Your task to perform on an android device: turn off location history Image 0: 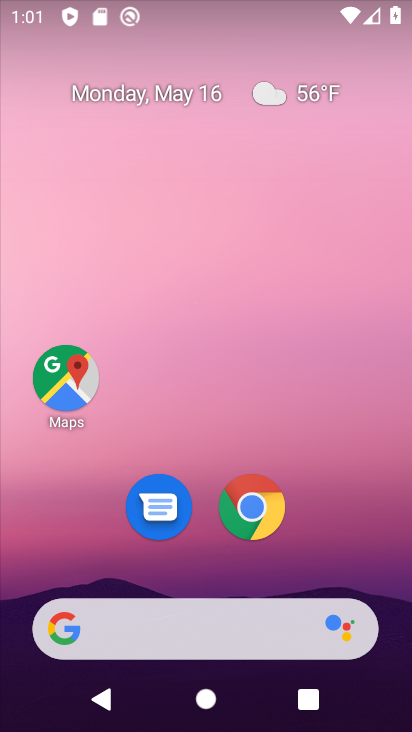
Step 0: drag from (205, 481) to (205, 184)
Your task to perform on an android device: turn off location history Image 1: 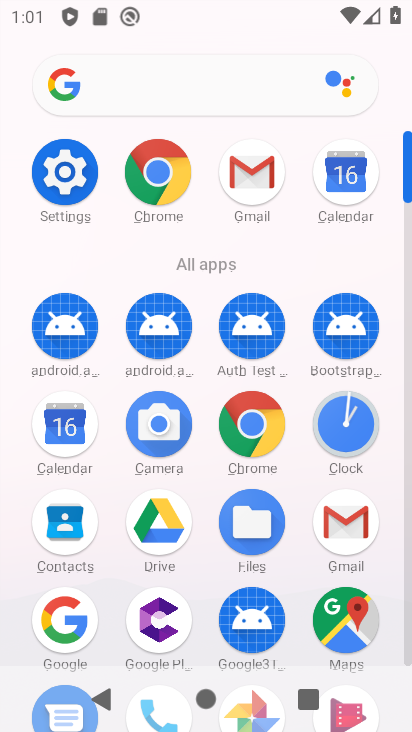
Step 1: click (91, 182)
Your task to perform on an android device: turn off location history Image 2: 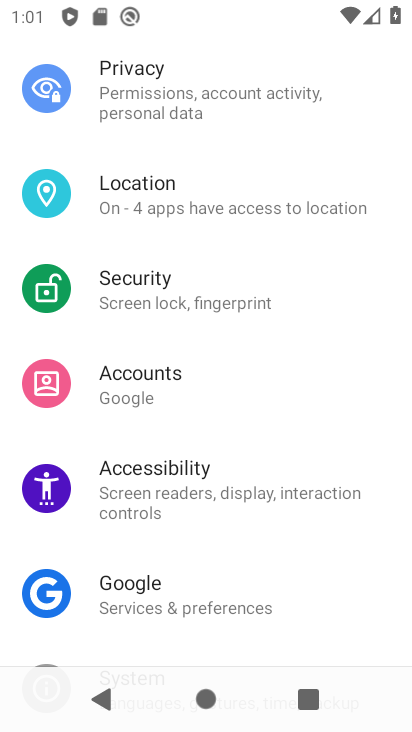
Step 2: drag from (240, 623) to (218, 524)
Your task to perform on an android device: turn off location history Image 3: 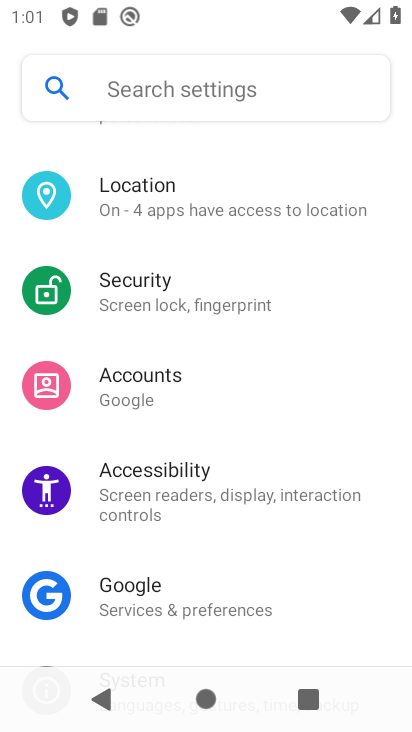
Step 3: click (141, 205)
Your task to perform on an android device: turn off location history Image 4: 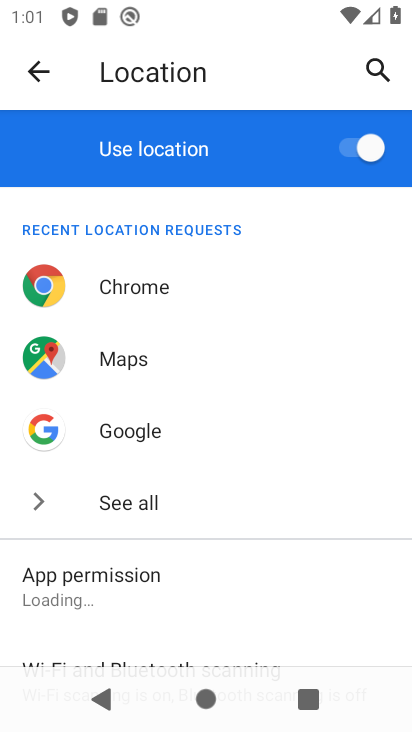
Step 4: drag from (343, 607) to (318, 349)
Your task to perform on an android device: turn off location history Image 5: 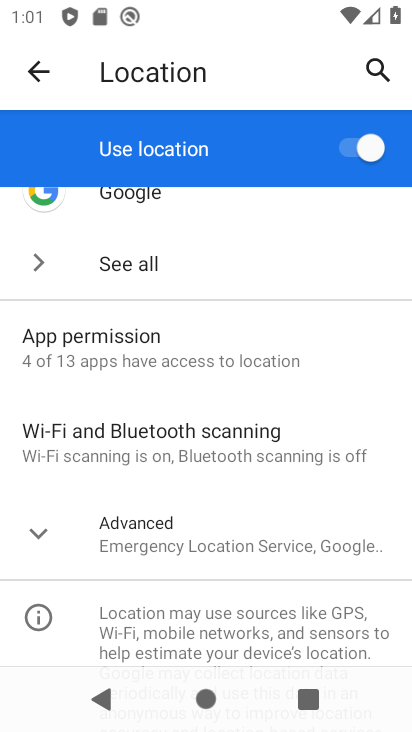
Step 5: click (281, 548)
Your task to perform on an android device: turn off location history Image 6: 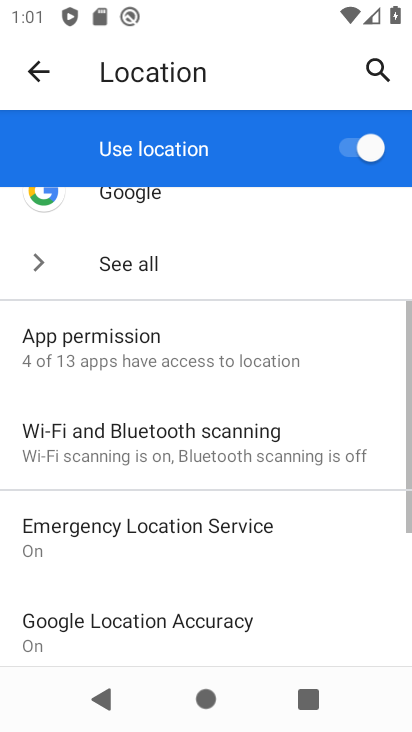
Step 6: drag from (247, 626) to (252, 489)
Your task to perform on an android device: turn off location history Image 7: 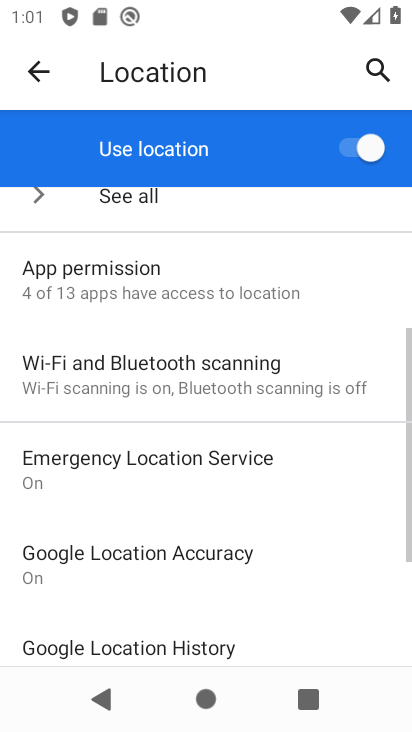
Step 7: drag from (252, 557) to (246, 432)
Your task to perform on an android device: turn off location history Image 8: 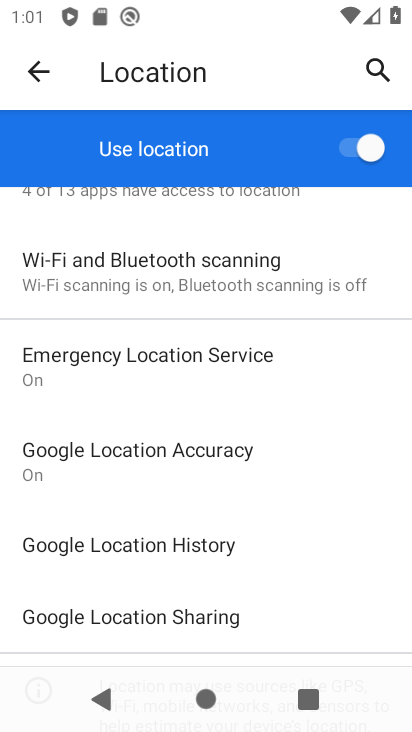
Step 8: click (223, 554)
Your task to perform on an android device: turn off location history Image 9: 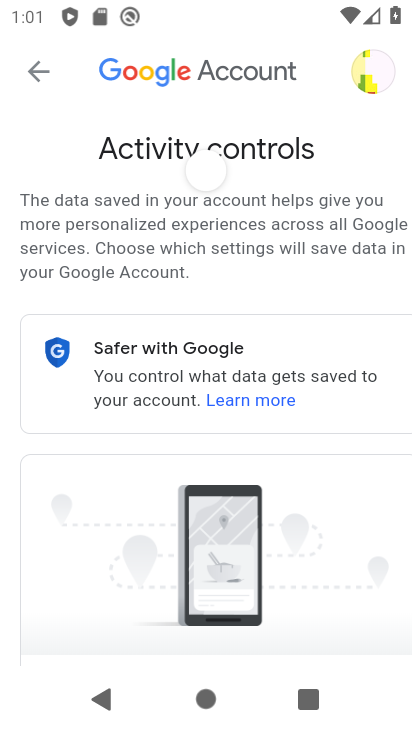
Step 9: task complete